Your task to perform on an android device: Open Google Chrome and click the shortcut for Amazon.com Image 0: 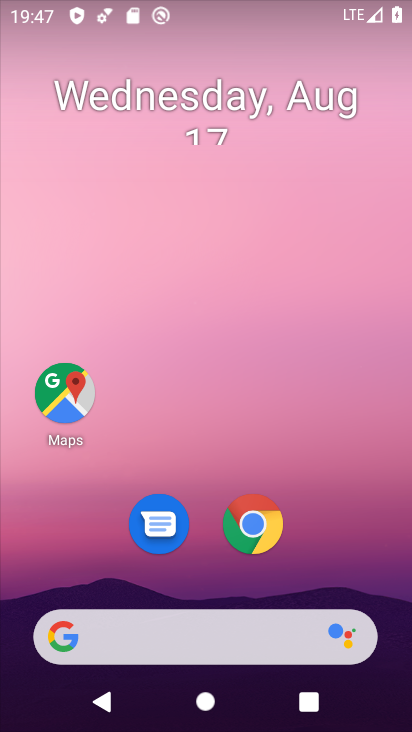
Step 0: click (248, 519)
Your task to perform on an android device: Open Google Chrome and click the shortcut for Amazon.com Image 1: 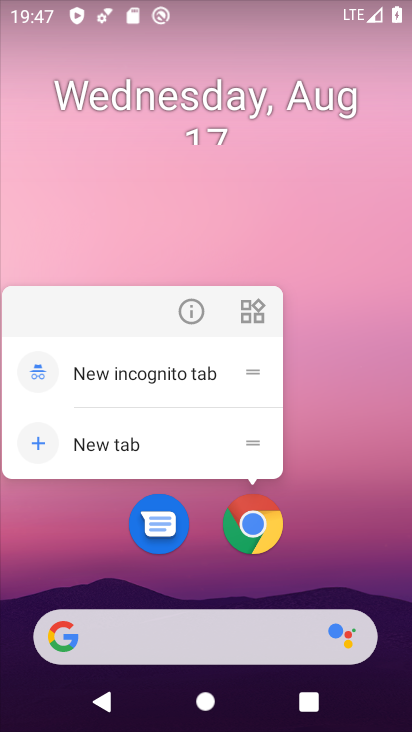
Step 1: click (255, 523)
Your task to perform on an android device: Open Google Chrome and click the shortcut for Amazon.com Image 2: 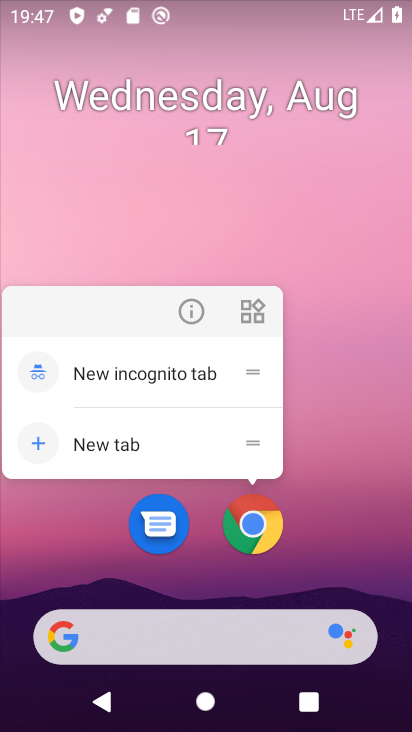
Step 2: click (255, 522)
Your task to perform on an android device: Open Google Chrome and click the shortcut for Amazon.com Image 3: 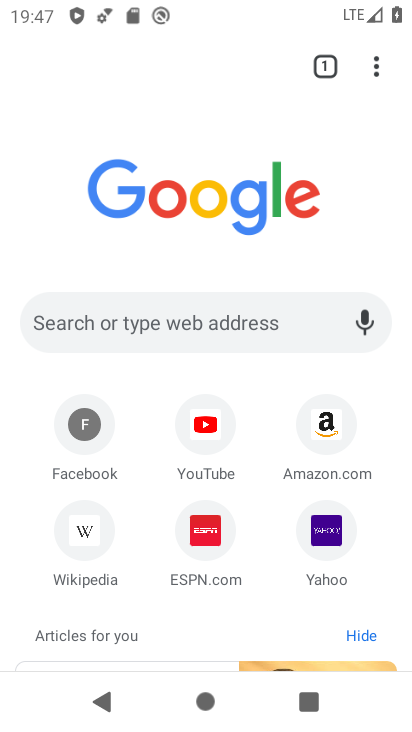
Step 3: click (337, 426)
Your task to perform on an android device: Open Google Chrome and click the shortcut for Amazon.com Image 4: 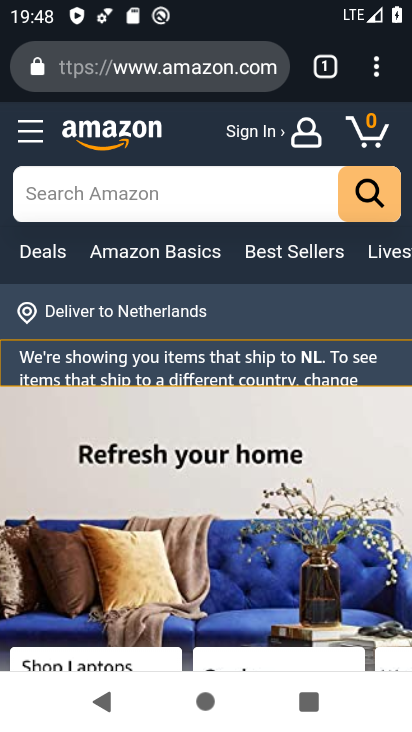
Step 4: task complete